Your task to perform on an android device: Open Google Image 0: 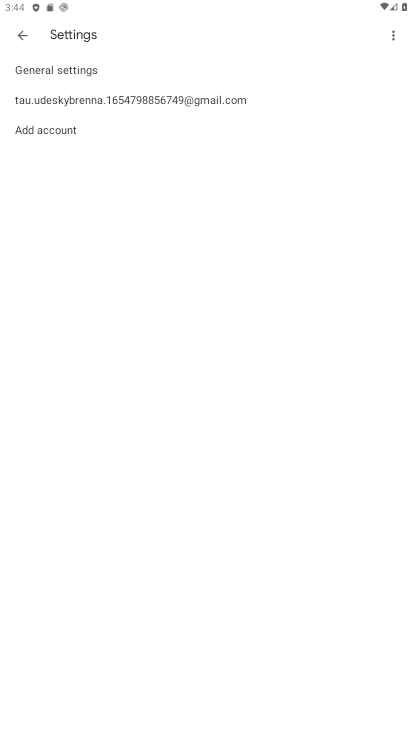
Step 0: press home button
Your task to perform on an android device: Open Google Image 1: 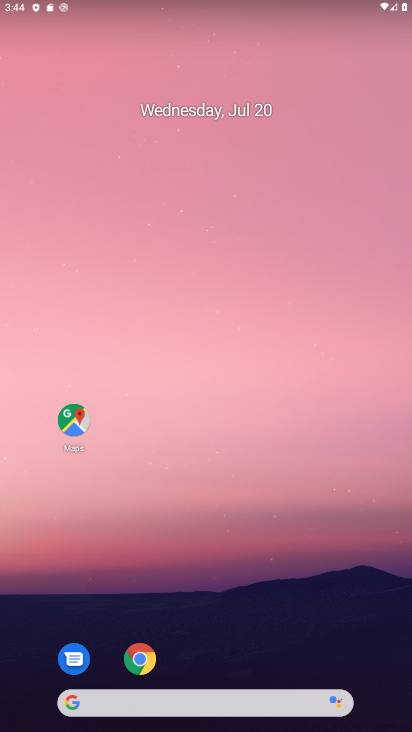
Step 1: drag from (215, 633) to (239, 257)
Your task to perform on an android device: Open Google Image 2: 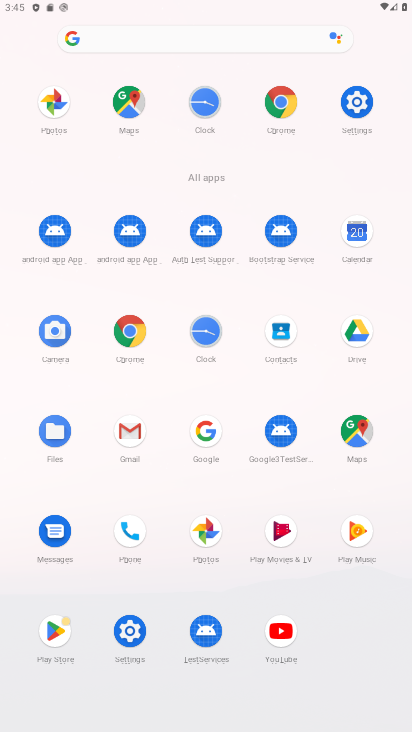
Step 2: click (208, 442)
Your task to perform on an android device: Open Google Image 3: 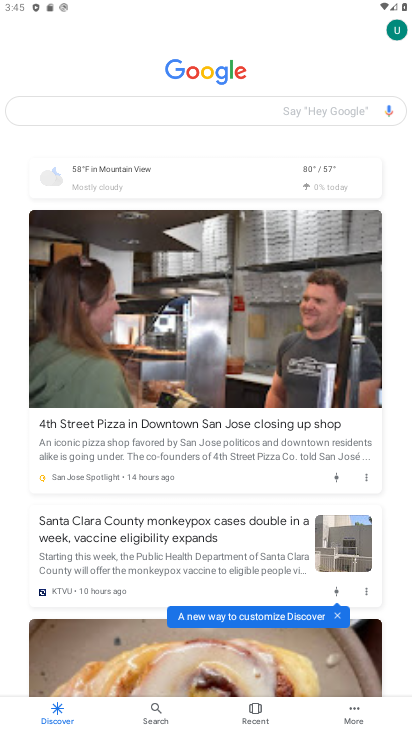
Step 3: task complete